Your task to perform on an android device: turn off priority inbox in the gmail app Image 0: 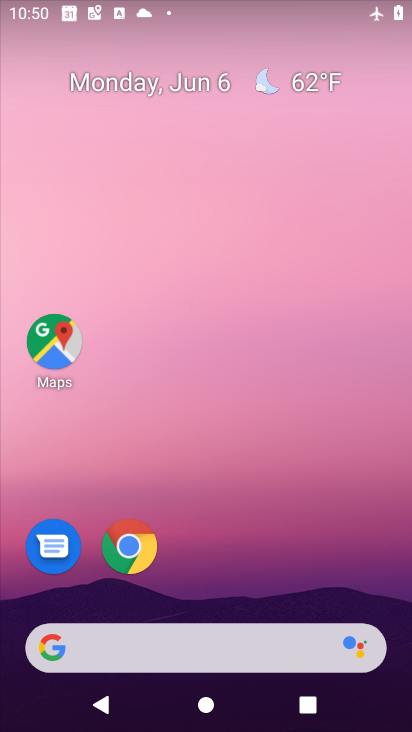
Step 0: drag from (394, 614) to (317, 164)
Your task to perform on an android device: turn off priority inbox in the gmail app Image 1: 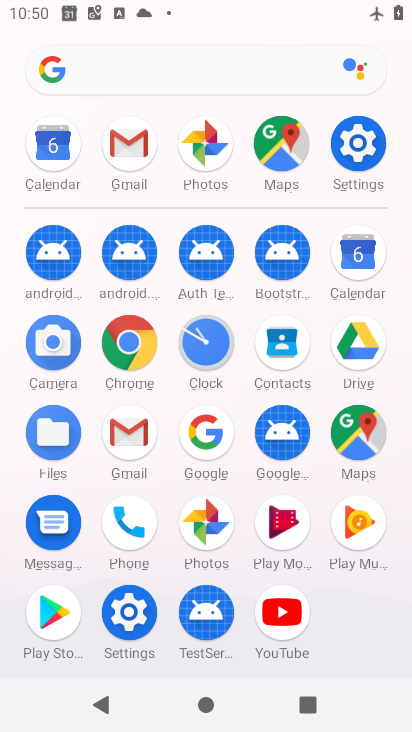
Step 1: click (125, 431)
Your task to perform on an android device: turn off priority inbox in the gmail app Image 2: 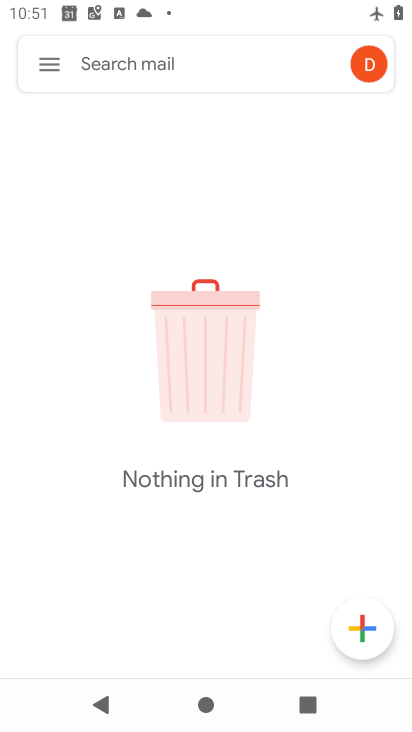
Step 2: click (44, 67)
Your task to perform on an android device: turn off priority inbox in the gmail app Image 3: 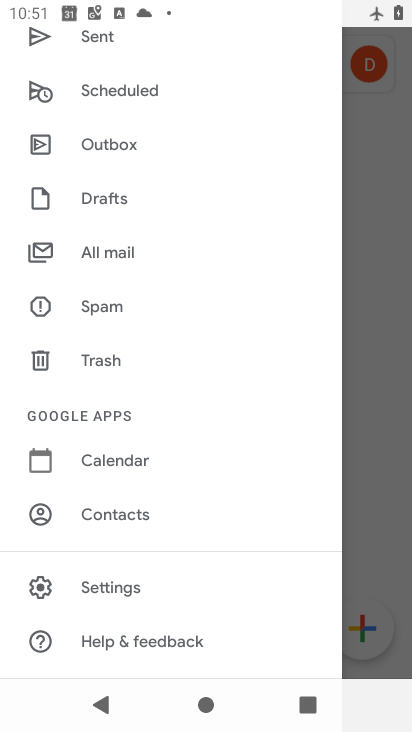
Step 3: click (103, 581)
Your task to perform on an android device: turn off priority inbox in the gmail app Image 4: 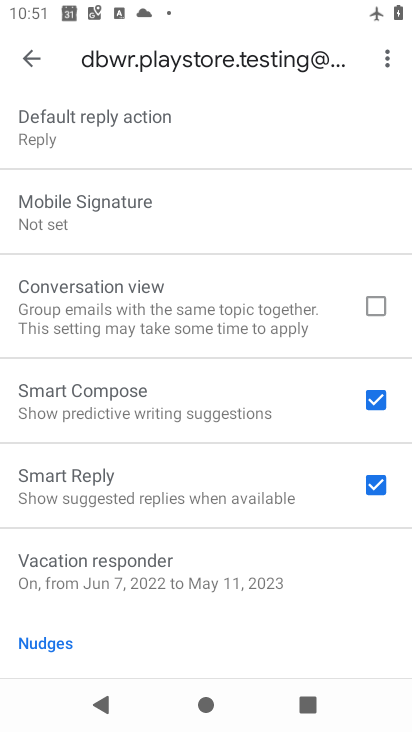
Step 4: drag from (304, 180) to (244, 529)
Your task to perform on an android device: turn off priority inbox in the gmail app Image 5: 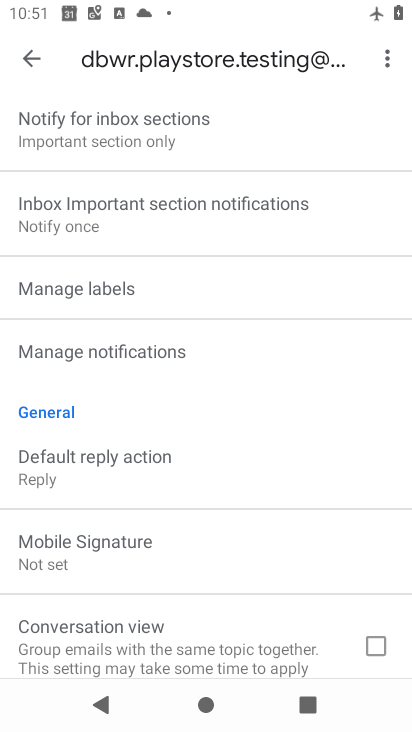
Step 5: drag from (293, 141) to (251, 527)
Your task to perform on an android device: turn off priority inbox in the gmail app Image 6: 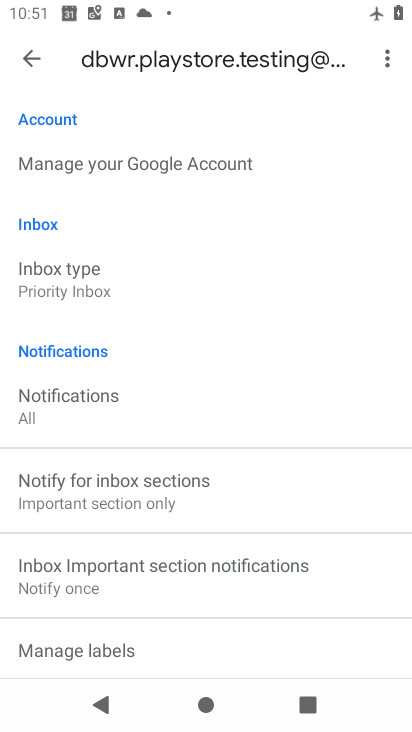
Step 6: click (67, 293)
Your task to perform on an android device: turn off priority inbox in the gmail app Image 7: 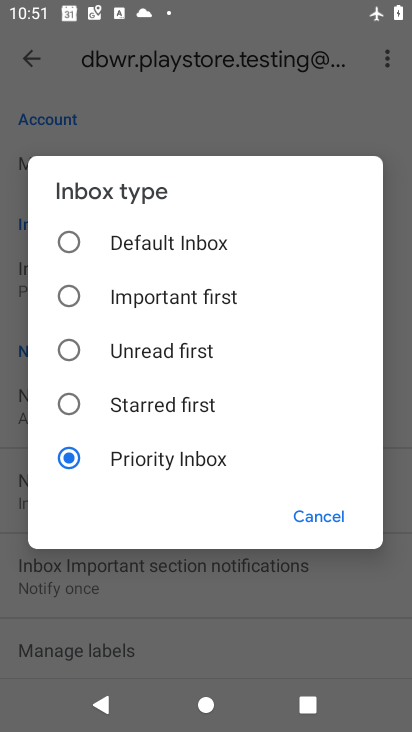
Step 7: click (71, 235)
Your task to perform on an android device: turn off priority inbox in the gmail app Image 8: 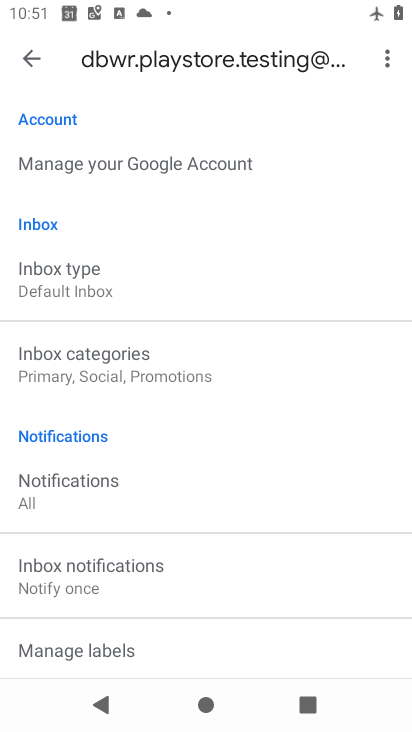
Step 8: task complete